Your task to perform on an android device: install app "Viber Messenger" Image 0: 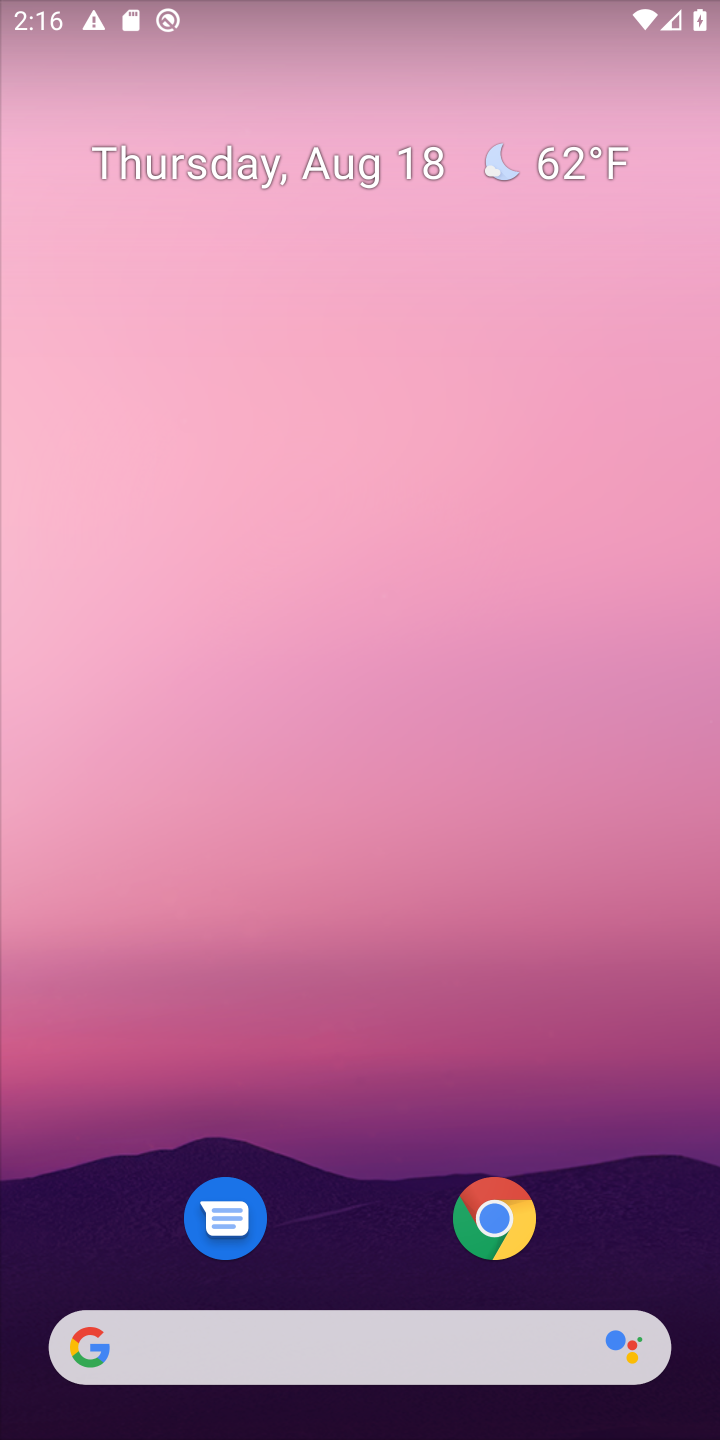
Step 0: drag from (341, 1131) to (410, 18)
Your task to perform on an android device: install app "Viber Messenger" Image 1: 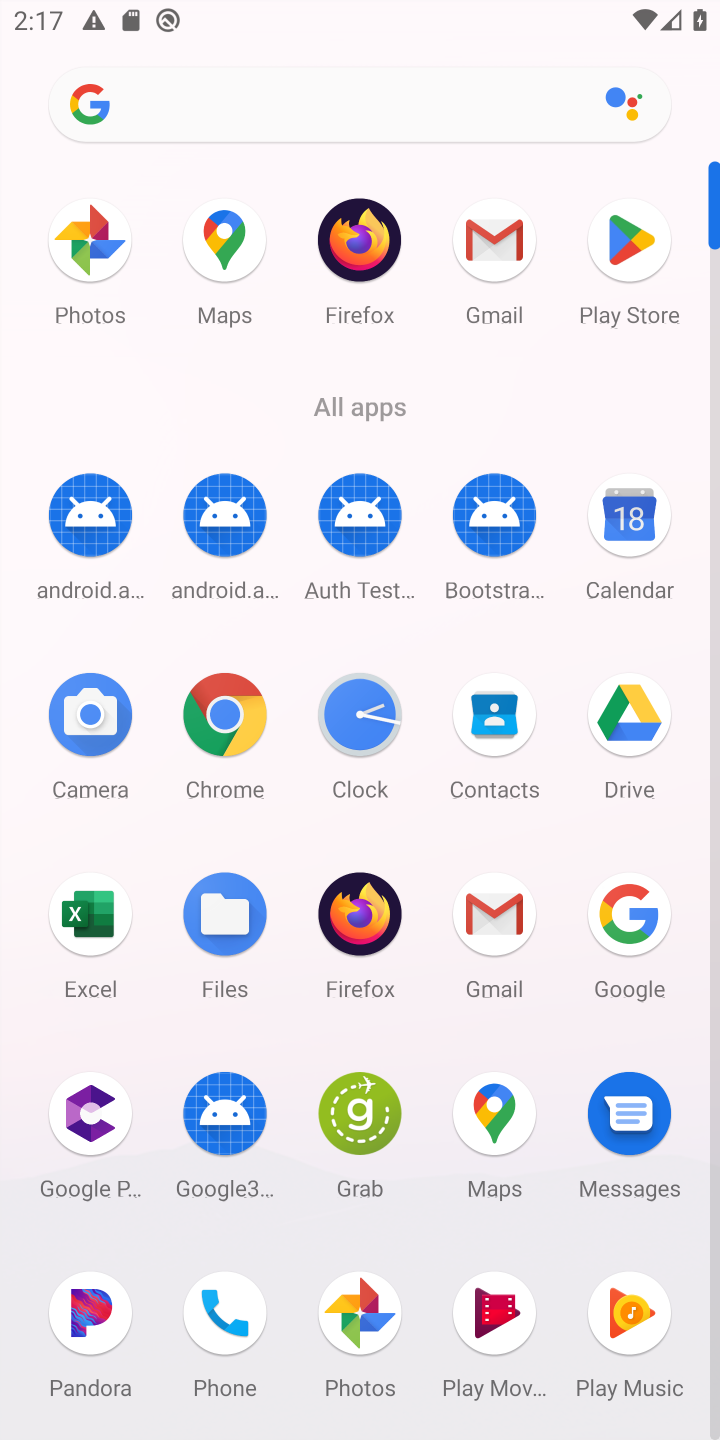
Step 1: click (614, 207)
Your task to perform on an android device: install app "Viber Messenger" Image 2: 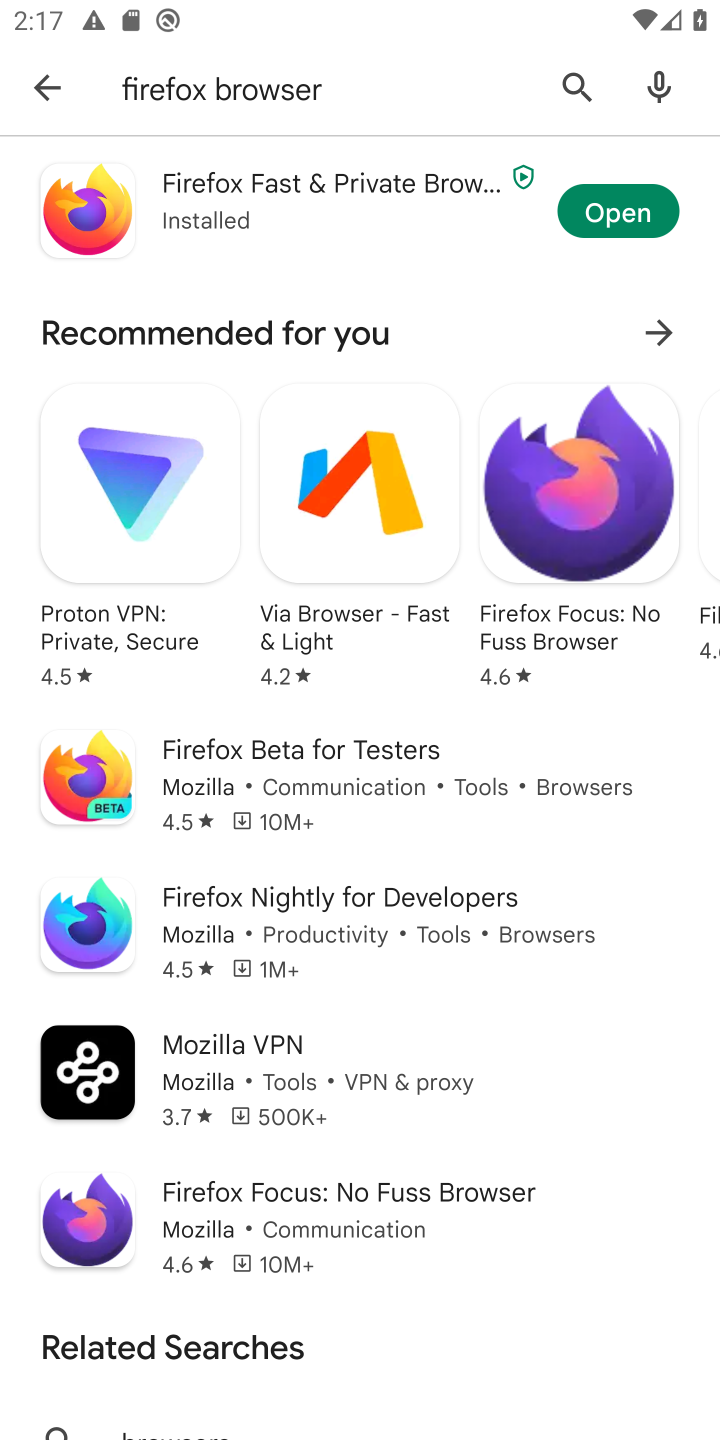
Step 2: task complete